Your task to perform on an android device: turn off notifications in google photos Image 0: 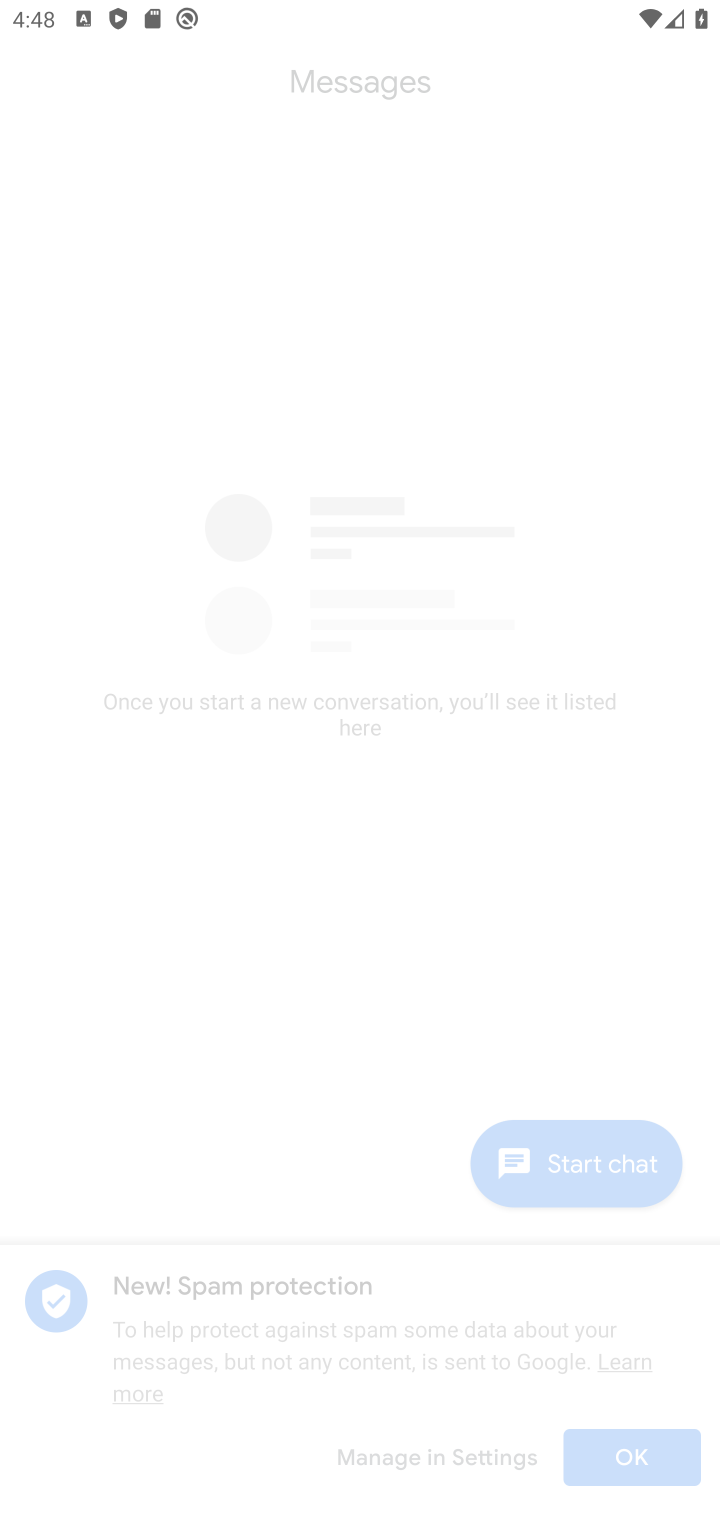
Step 0: press home button
Your task to perform on an android device: turn off notifications in google photos Image 1: 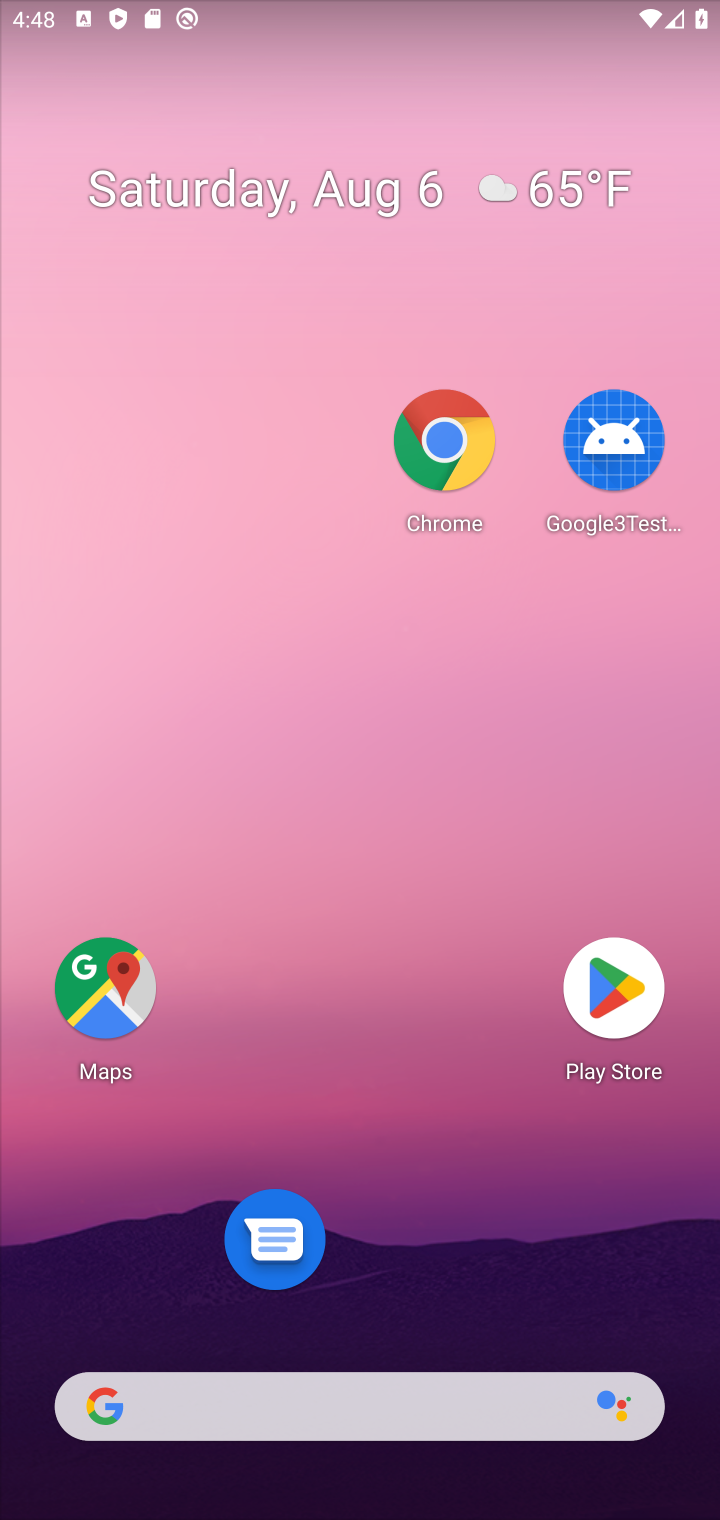
Step 1: drag from (272, 1381) to (518, 119)
Your task to perform on an android device: turn off notifications in google photos Image 2: 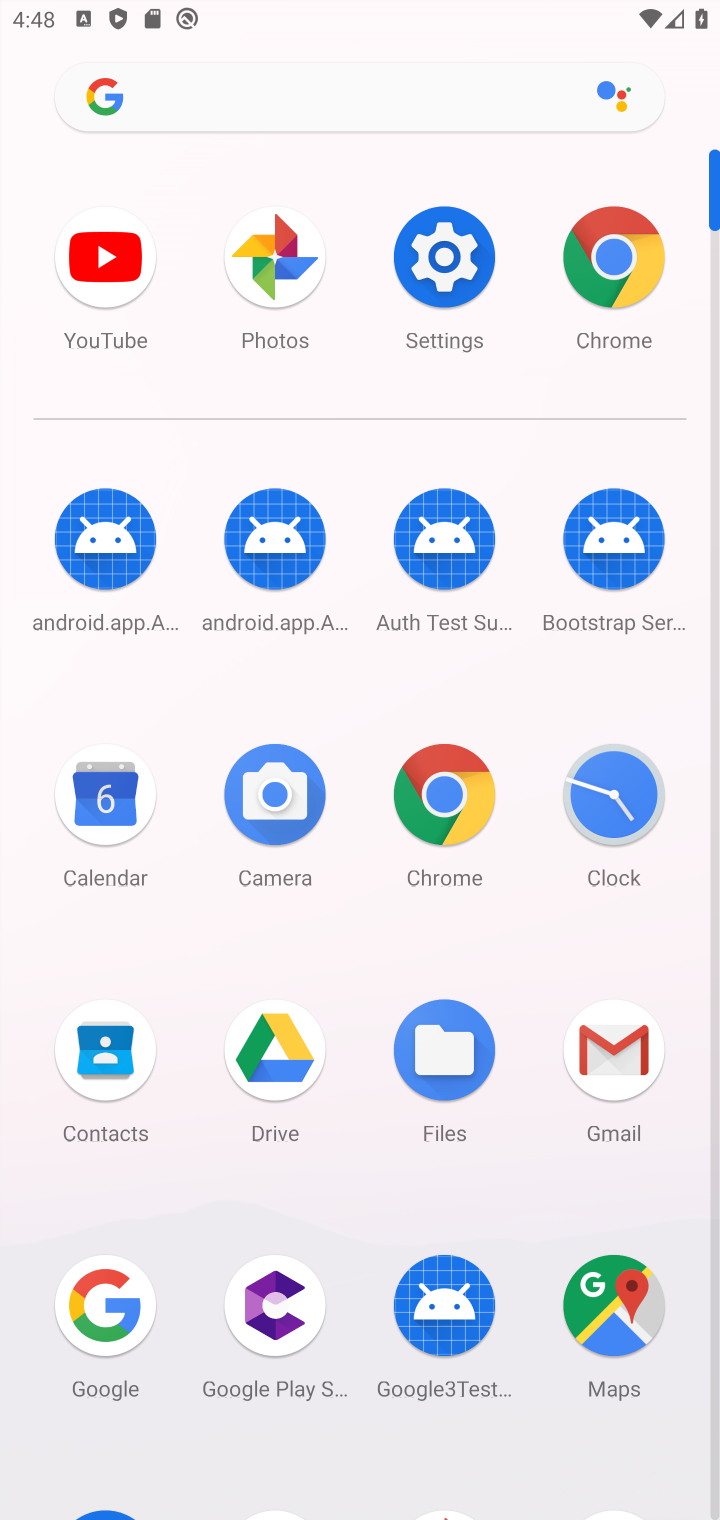
Step 2: drag from (361, 1454) to (267, 335)
Your task to perform on an android device: turn off notifications in google photos Image 3: 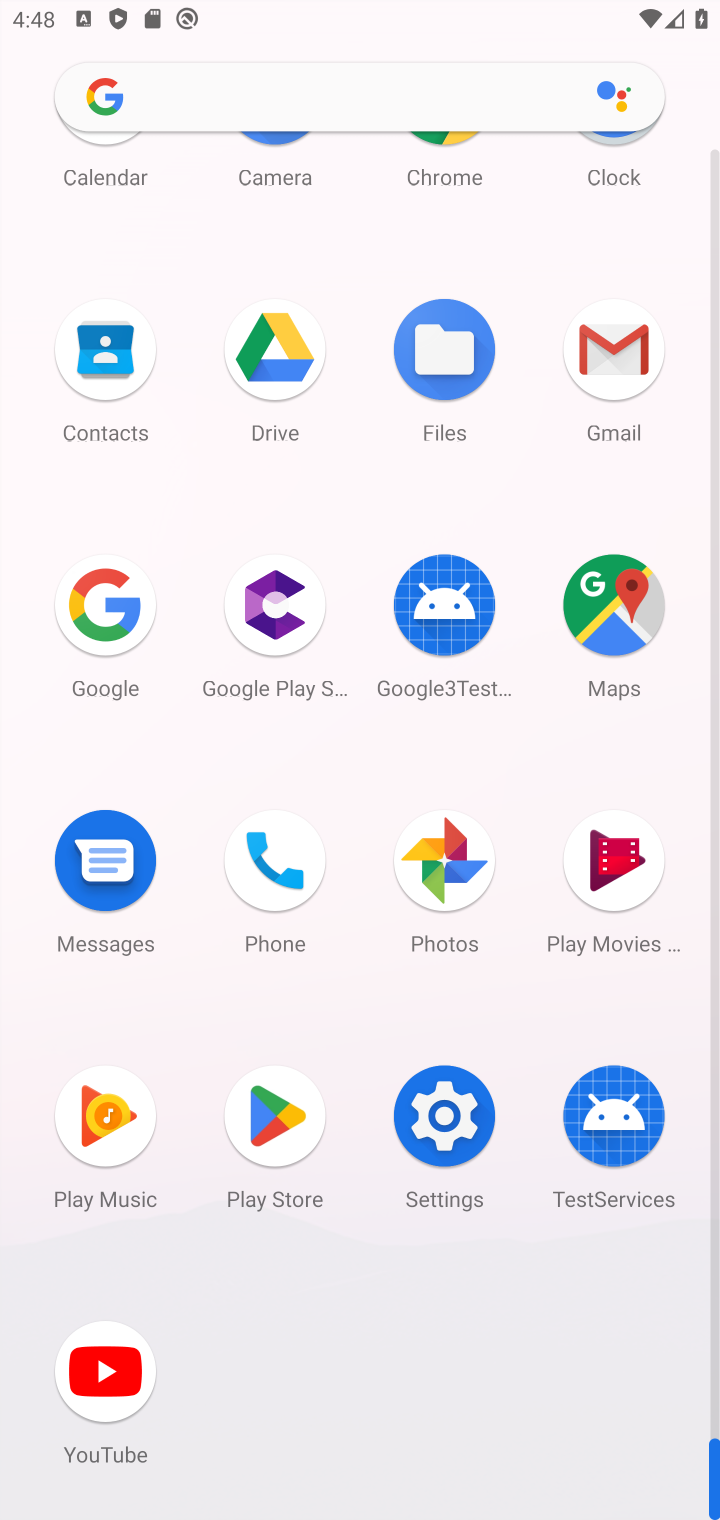
Step 3: click (440, 872)
Your task to perform on an android device: turn off notifications in google photos Image 4: 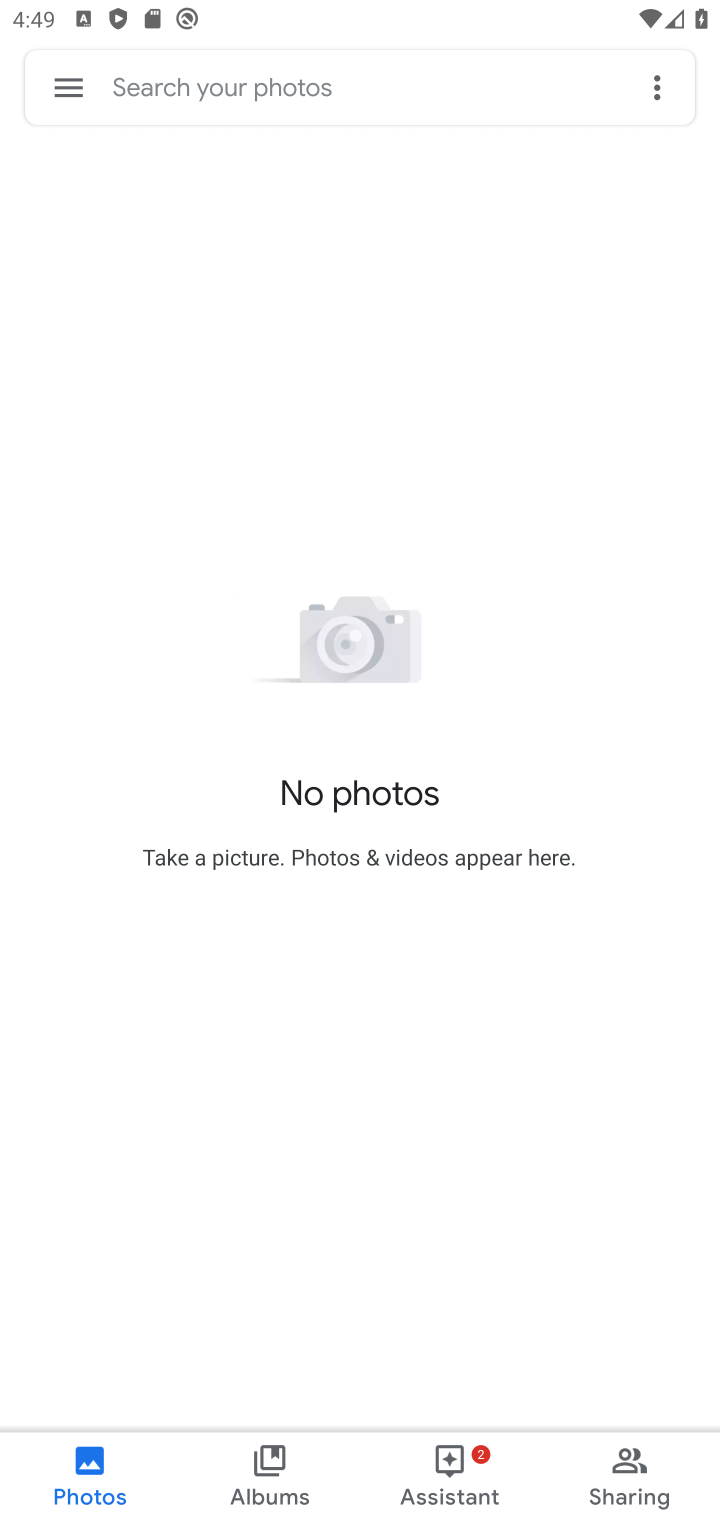
Step 4: click (68, 91)
Your task to perform on an android device: turn off notifications in google photos Image 5: 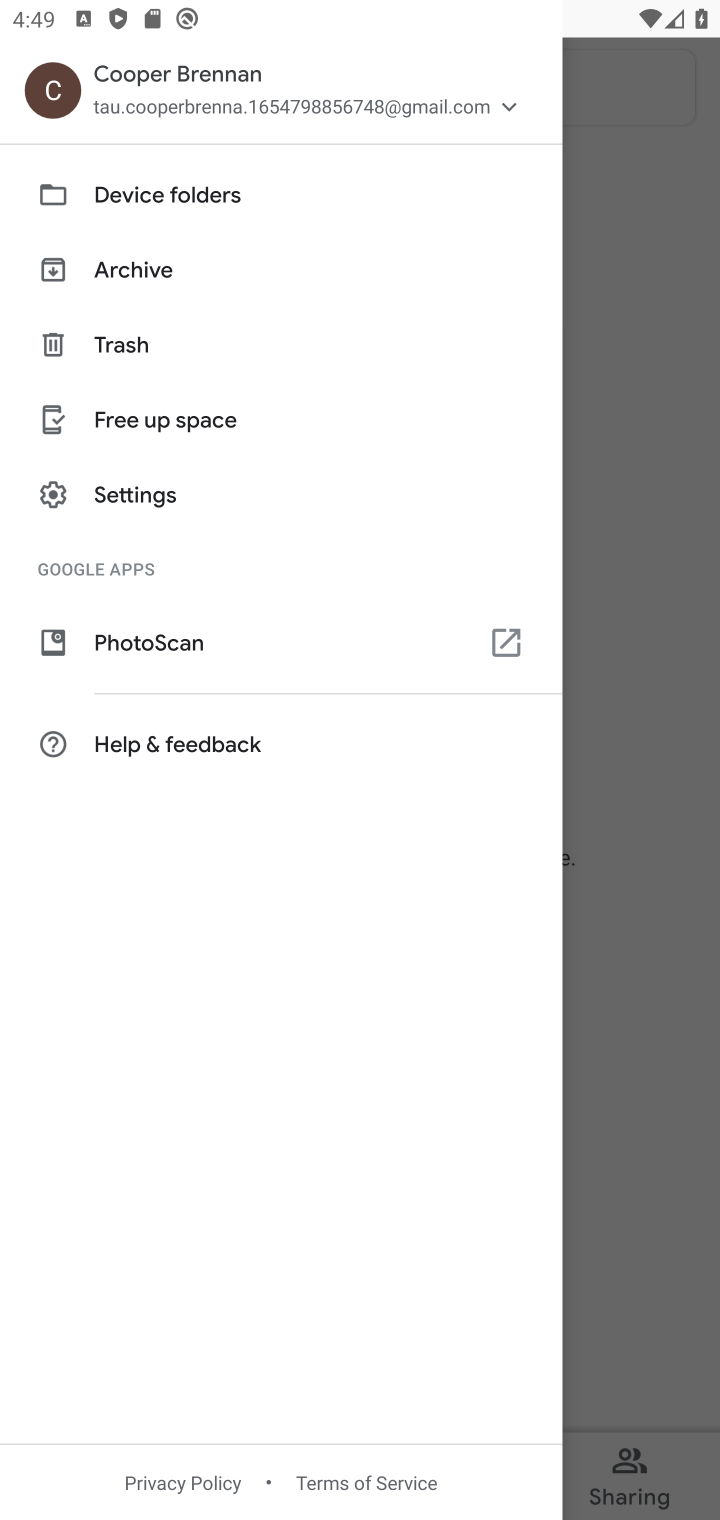
Step 5: click (169, 493)
Your task to perform on an android device: turn off notifications in google photos Image 6: 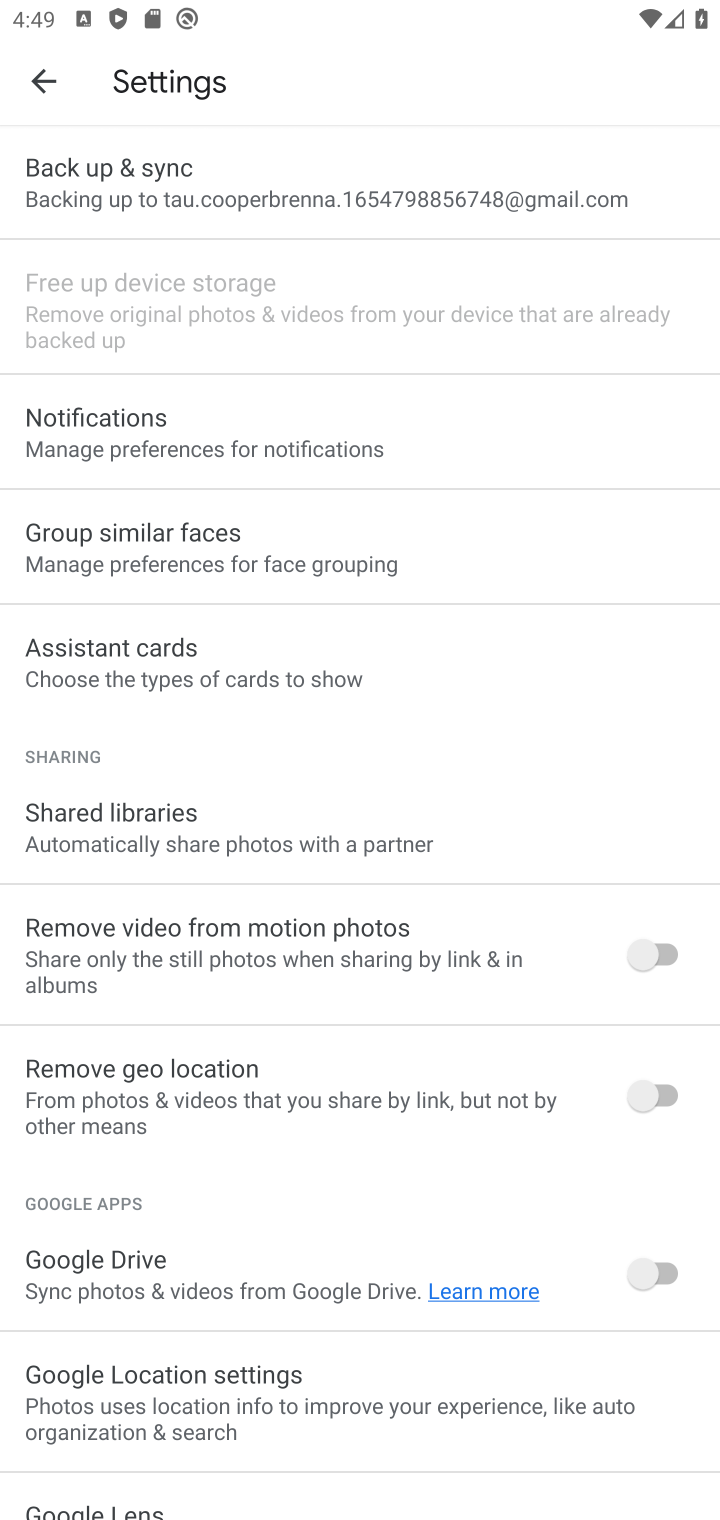
Step 6: click (260, 443)
Your task to perform on an android device: turn off notifications in google photos Image 7: 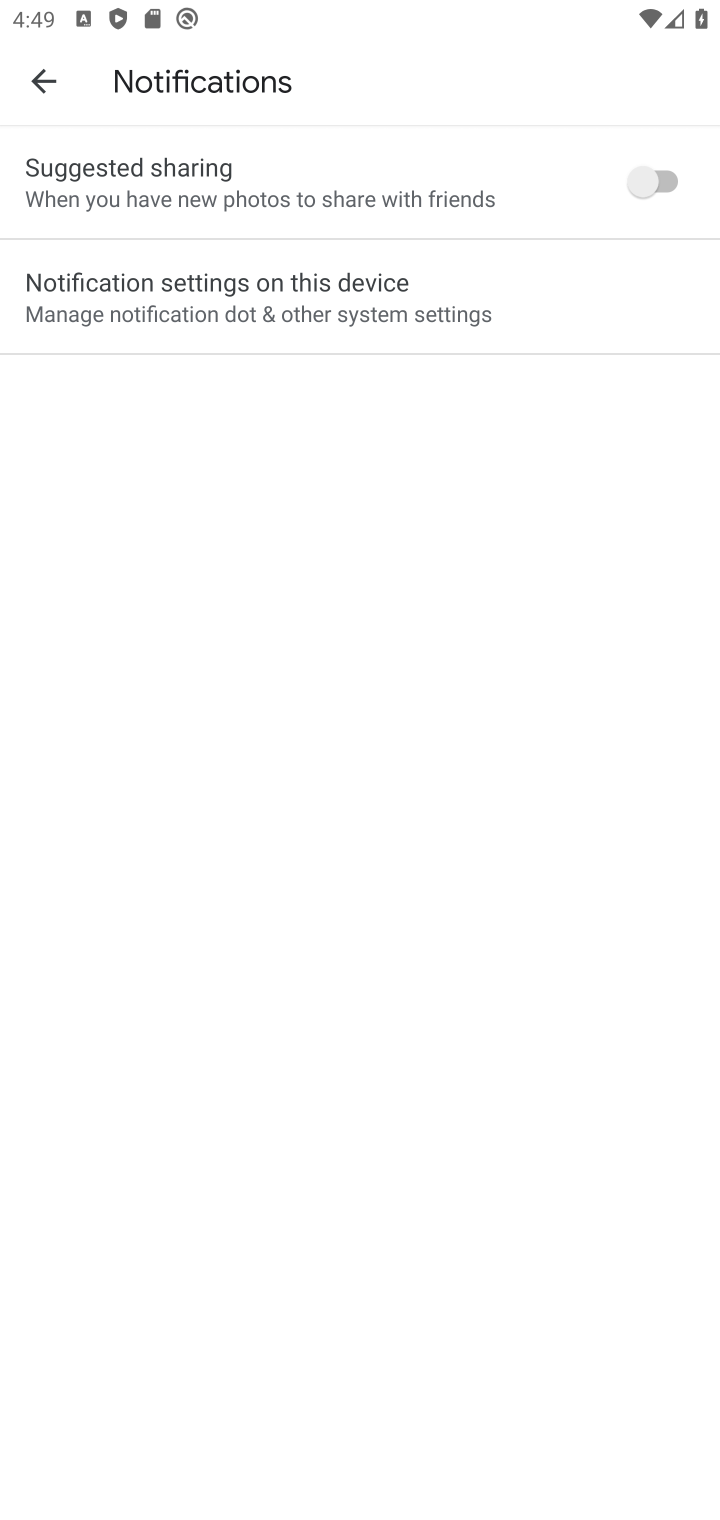
Step 7: click (594, 294)
Your task to perform on an android device: turn off notifications in google photos Image 8: 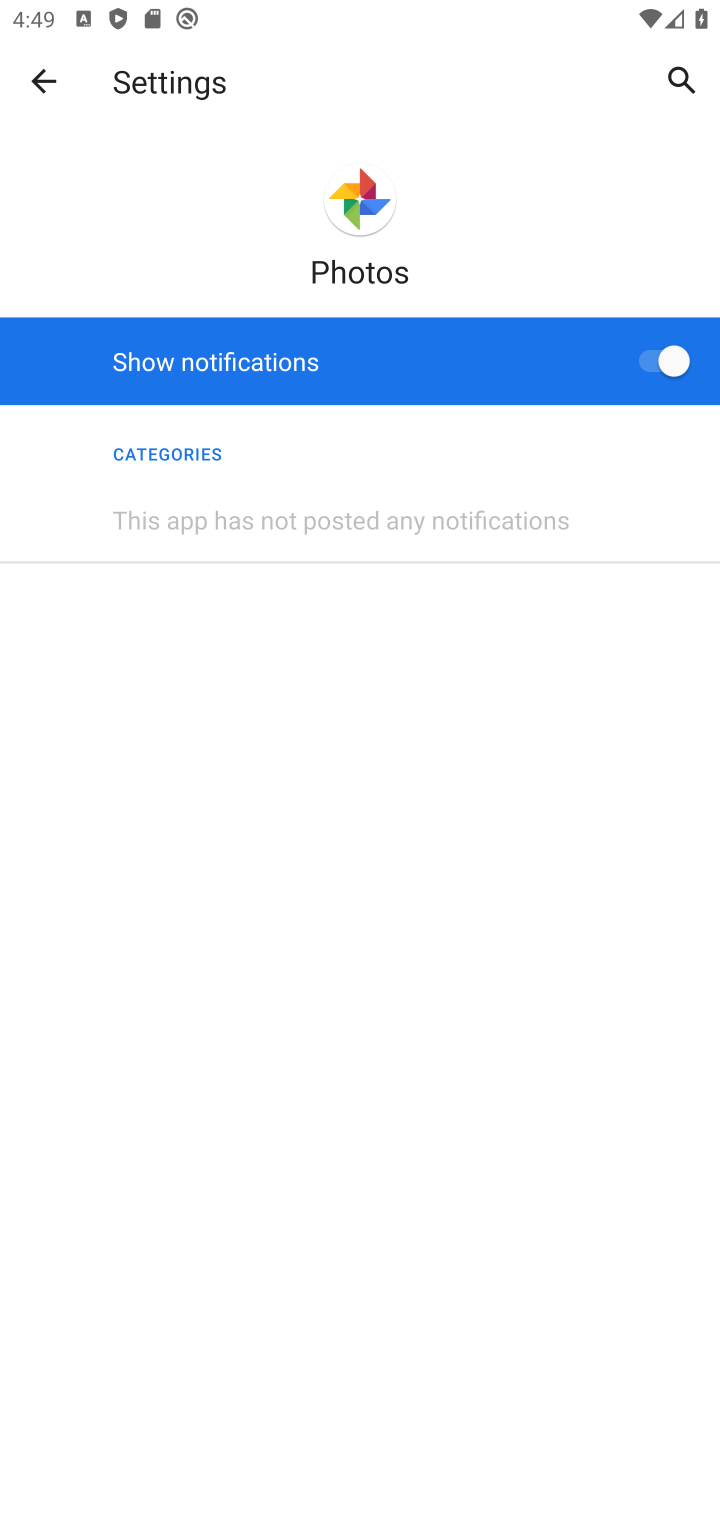
Step 8: click (667, 360)
Your task to perform on an android device: turn off notifications in google photos Image 9: 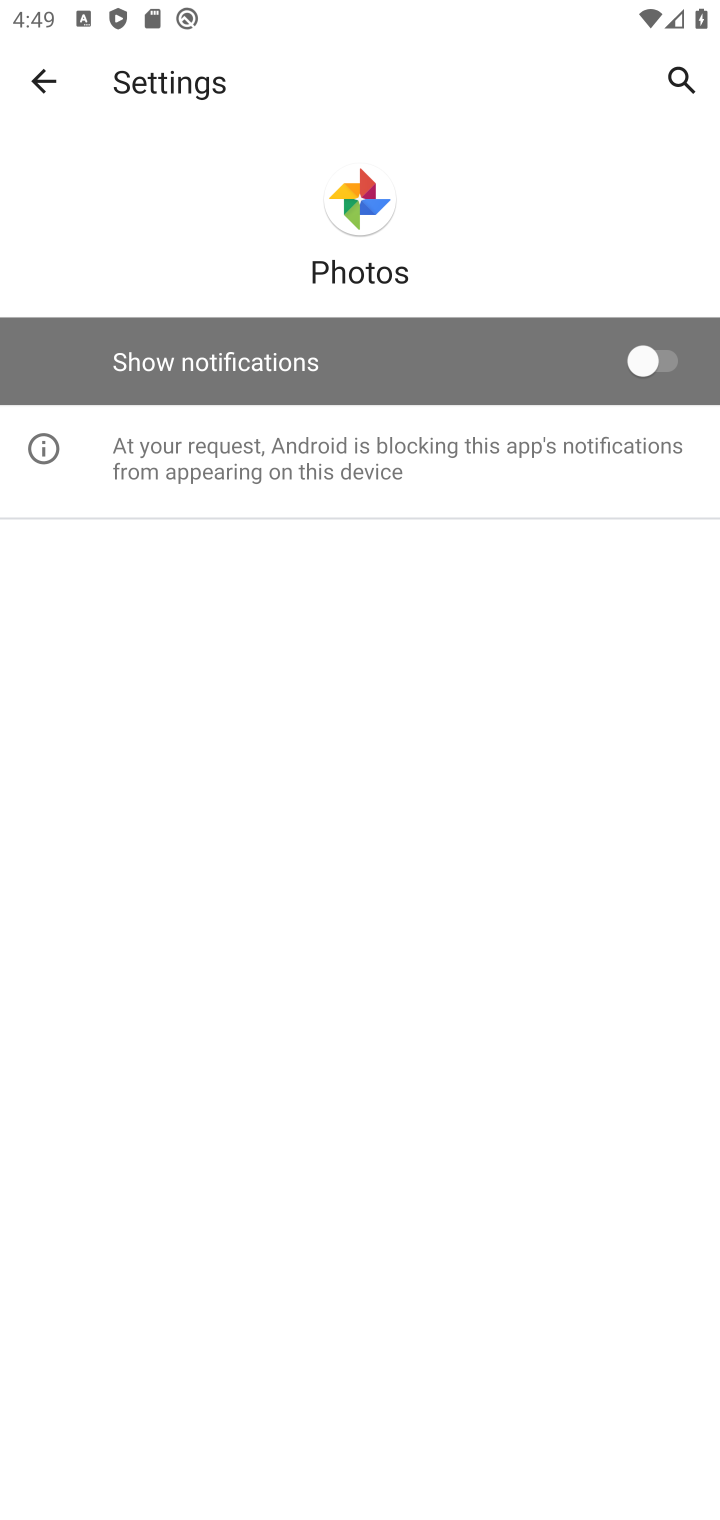
Step 9: task complete